Your task to perform on an android device: turn on javascript in the chrome app Image 0: 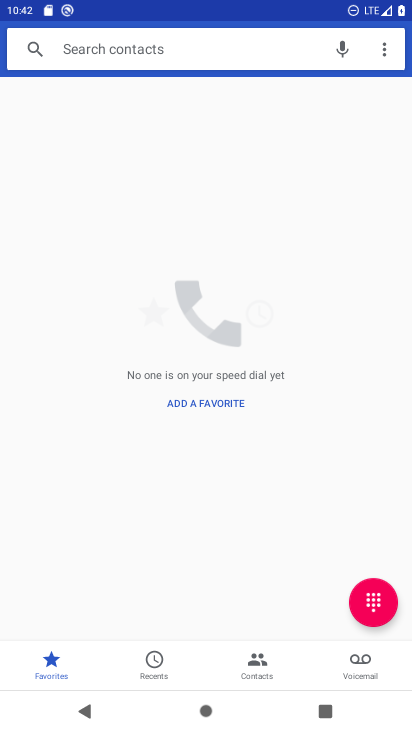
Step 0: press home button
Your task to perform on an android device: turn on javascript in the chrome app Image 1: 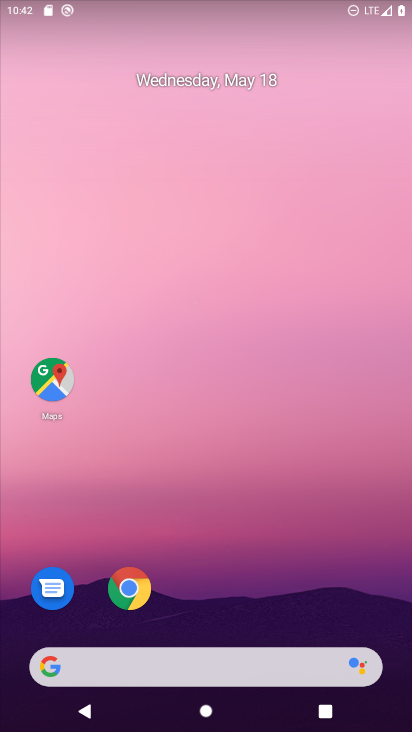
Step 1: click (133, 589)
Your task to perform on an android device: turn on javascript in the chrome app Image 2: 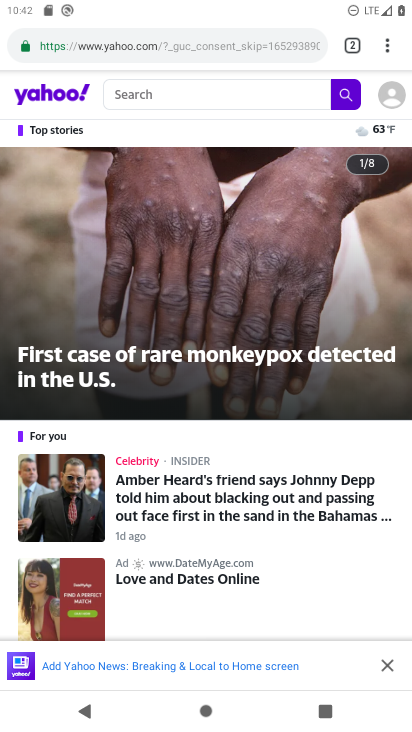
Step 2: click (388, 46)
Your task to perform on an android device: turn on javascript in the chrome app Image 3: 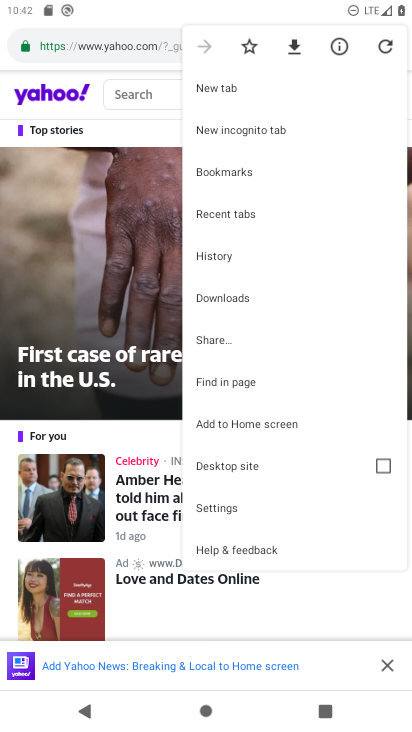
Step 3: click (219, 511)
Your task to perform on an android device: turn on javascript in the chrome app Image 4: 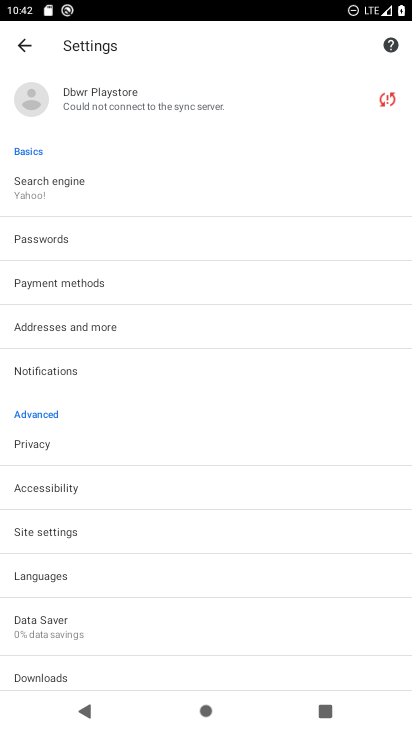
Step 4: click (77, 538)
Your task to perform on an android device: turn on javascript in the chrome app Image 5: 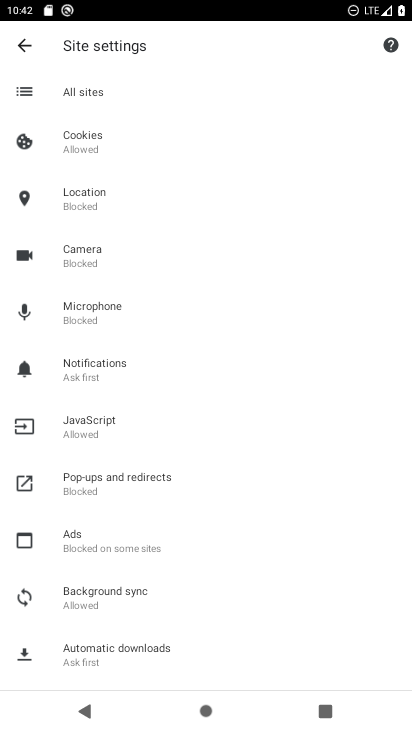
Step 5: click (93, 431)
Your task to perform on an android device: turn on javascript in the chrome app Image 6: 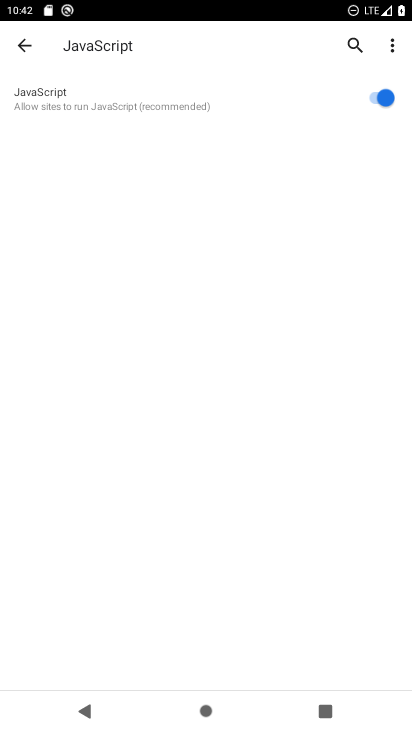
Step 6: task complete